Your task to perform on an android device: Go to wifi settings Image 0: 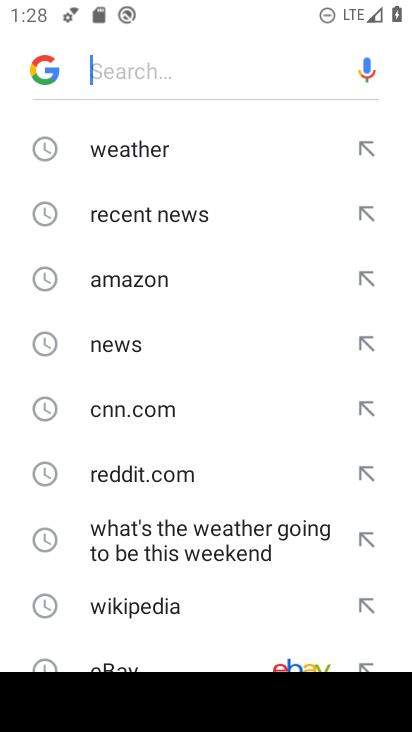
Step 0: press home button
Your task to perform on an android device: Go to wifi settings Image 1: 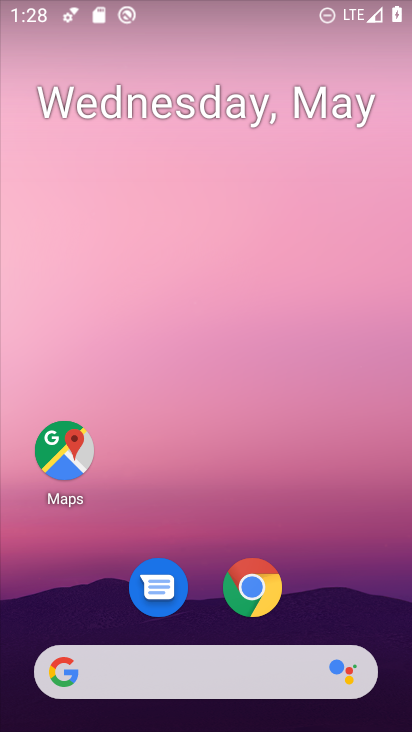
Step 1: drag from (343, 614) to (327, 119)
Your task to perform on an android device: Go to wifi settings Image 2: 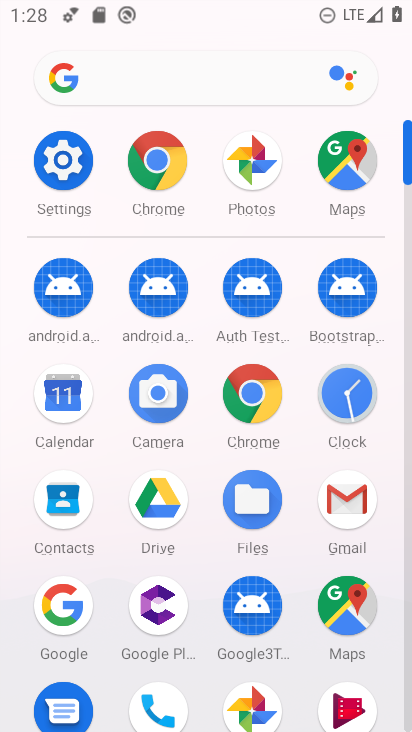
Step 2: click (88, 211)
Your task to perform on an android device: Go to wifi settings Image 3: 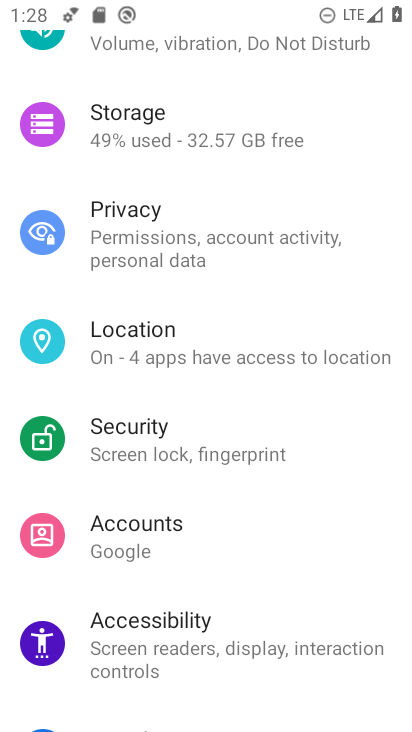
Step 3: drag from (199, 192) to (190, 709)
Your task to perform on an android device: Go to wifi settings Image 4: 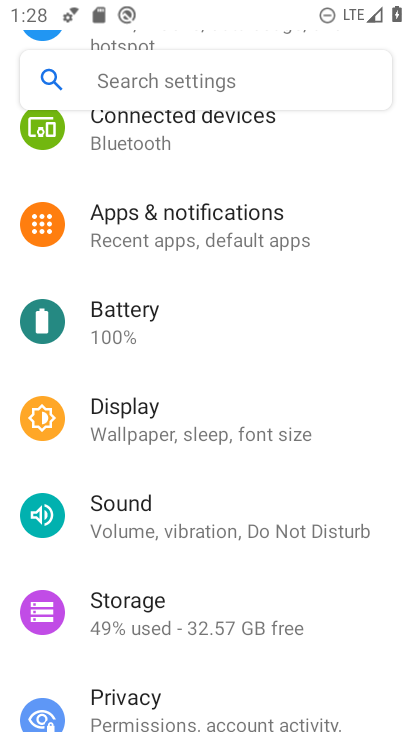
Step 4: drag from (223, 219) to (171, 713)
Your task to perform on an android device: Go to wifi settings Image 5: 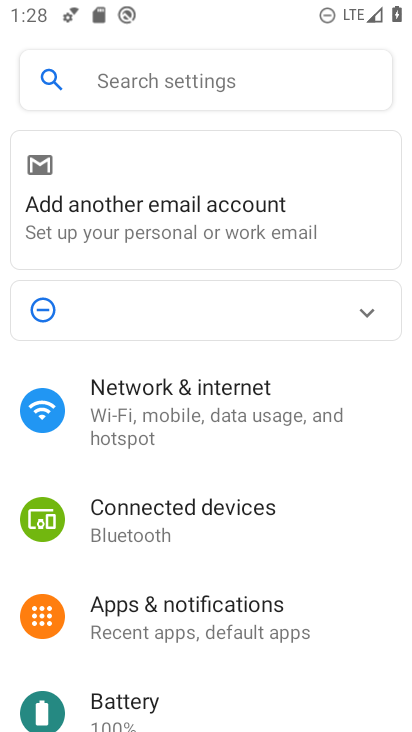
Step 5: click (167, 421)
Your task to perform on an android device: Go to wifi settings Image 6: 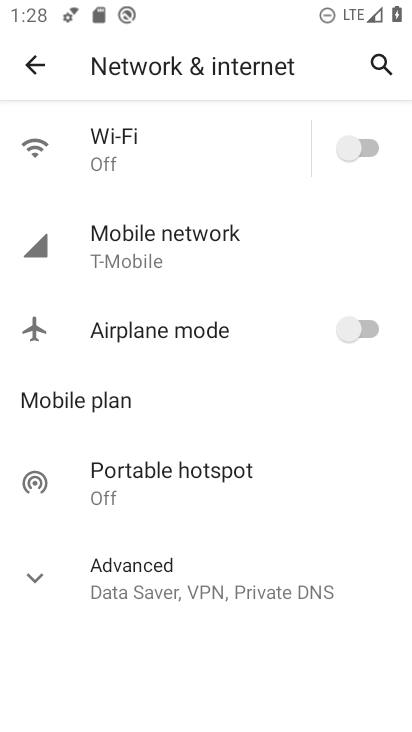
Step 6: click (179, 144)
Your task to perform on an android device: Go to wifi settings Image 7: 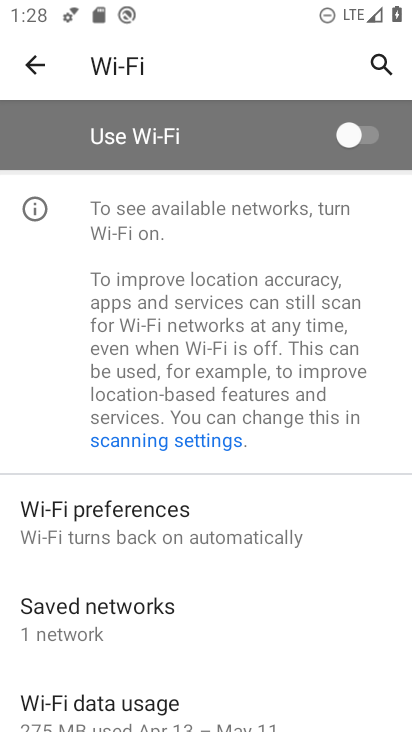
Step 7: task complete